Your task to perform on an android device: Go to notification settings Image 0: 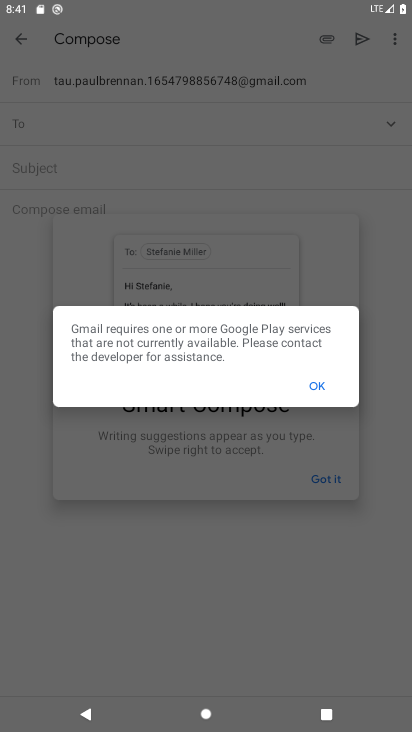
Step 0: press home button
Your task to perform on an android device: Go to notification settings Image 1: 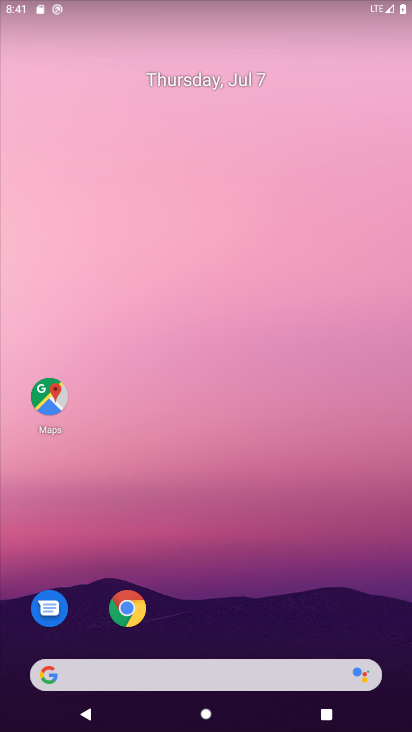
Step 1: drag from (321, 603) to (356, 92)
Your task to perform on an android device: Go to notification settings Image 2: 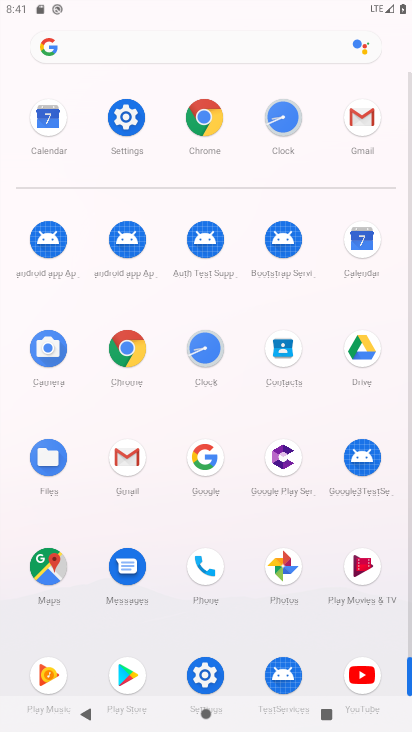
Step 2: click (122, 139)
Your task to perform on an android device: Go to notification settings Image 3: 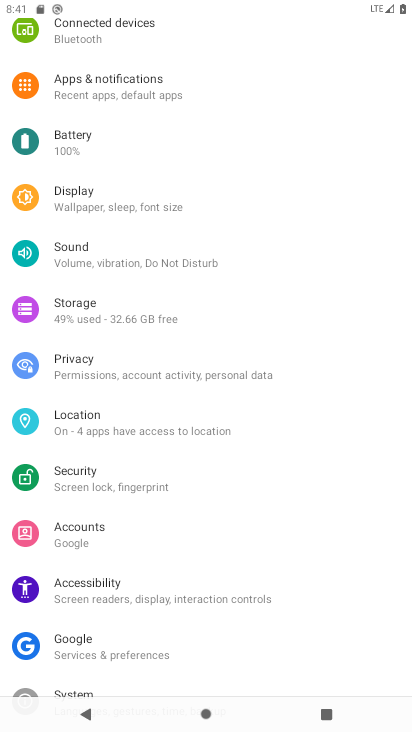
Step 3: drag from (319, 465) to (353, 189)
Your task to perform on an android device: Go to notification settings Image 4: 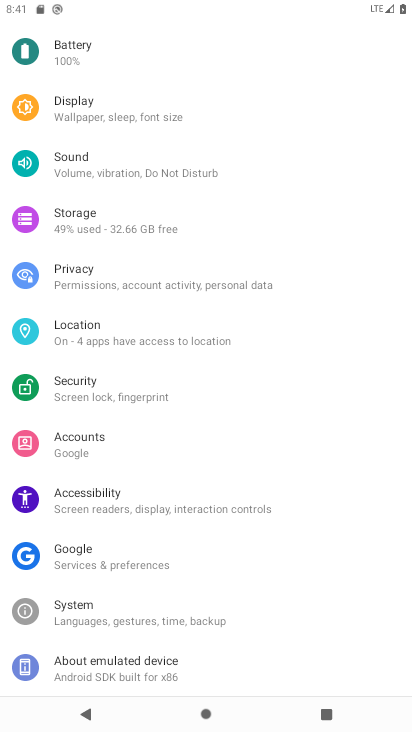
Step 4: drag from (354, 234) to (362, 404)
Your task to perform on an android device: Go to notification settings Image 5: 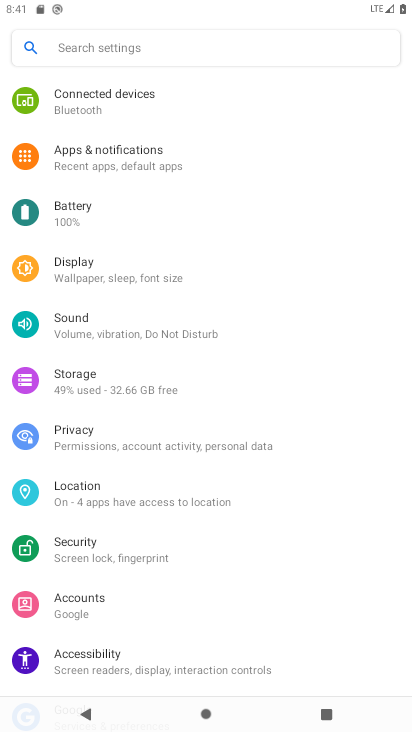
Step 5: drag from (324, 236) to (316, 404)
Your task to perform on an android device: Go to notification settings Image 6: 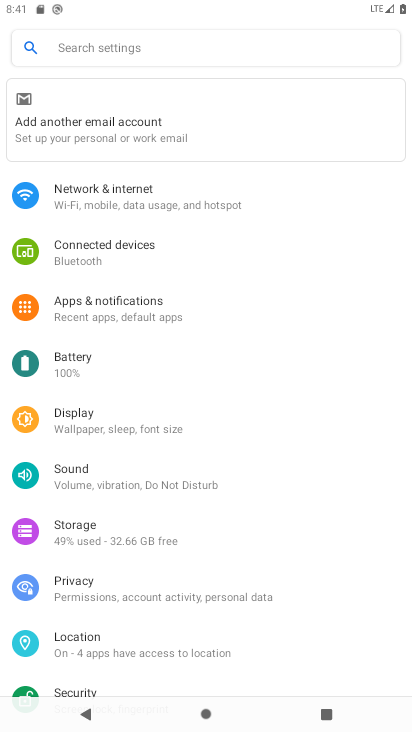
Step 6: drag from (302, 262) to (316, 403)
Your task to perform on an android device: Go to notification settings Image 7: 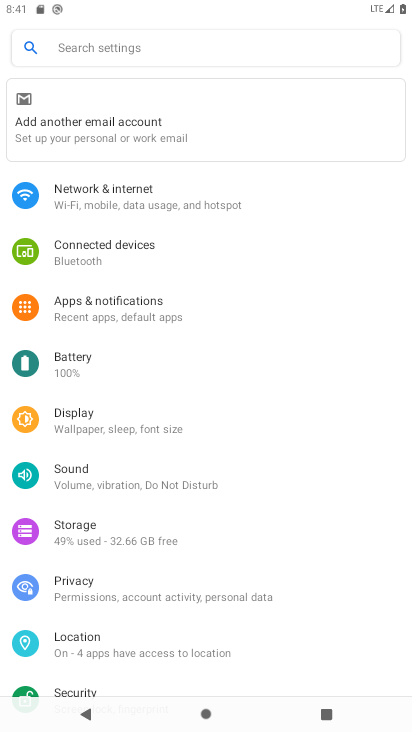
Step 7: click (161, 310)
Your task to perform on an android device: Go to notification settings Image 8: 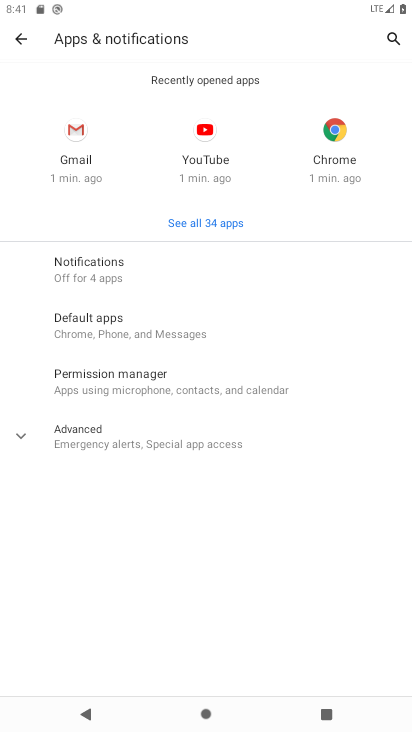
Step 8: click (102, 265)
Your task to perform on an android device: Go to notification settings Image 9: 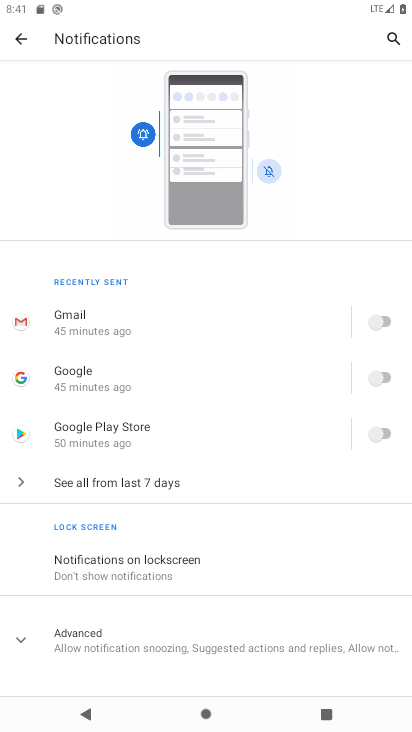
Step 9: task complete